Your task to perform on an android device: Open Google Chrome Image 0: 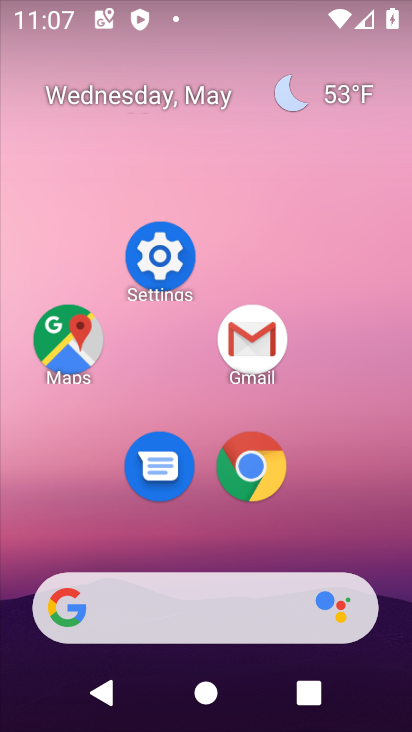
Step 0: drag from (208, 551) to (239, 205)
Your task to perform on an android device: Open Google Chrome Image 1: 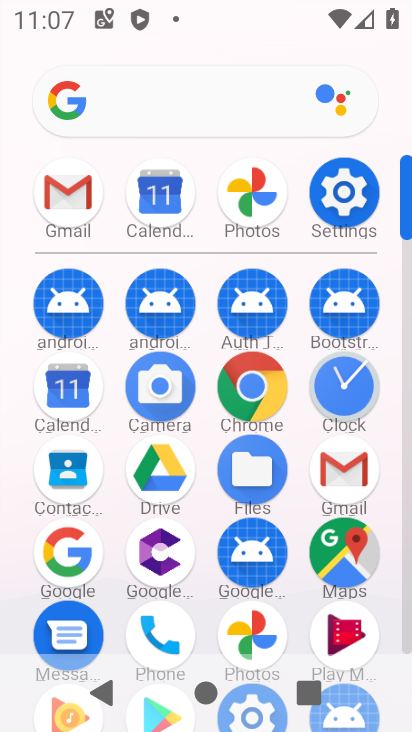
Step 1: drag from (202, 637) to (227, 215)
Your task to perform on an android device: Open Google Chrome Image 2: 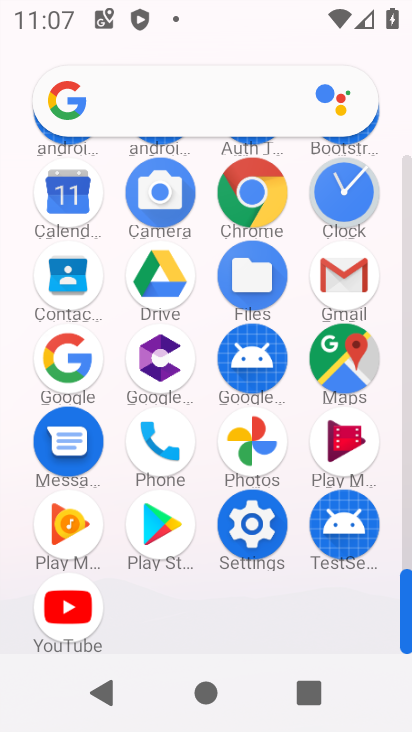
Step 2: click (254, 191)
Your task to perform on an android device: Open Google Chrome Image 3: 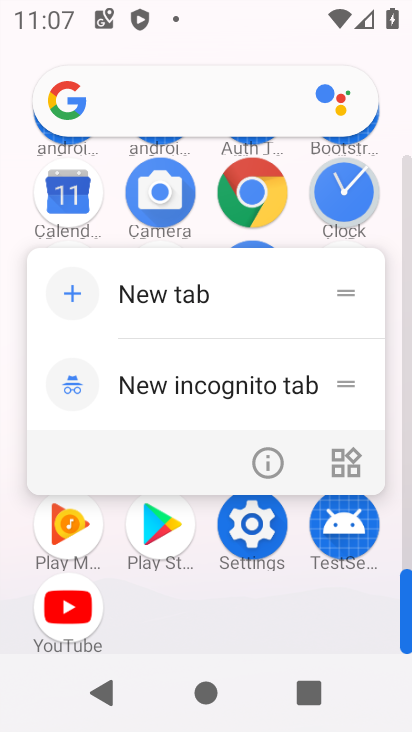
Step 3: click (248, 449)
Your task to perform on an android device: Open Google Chrome Image 4: 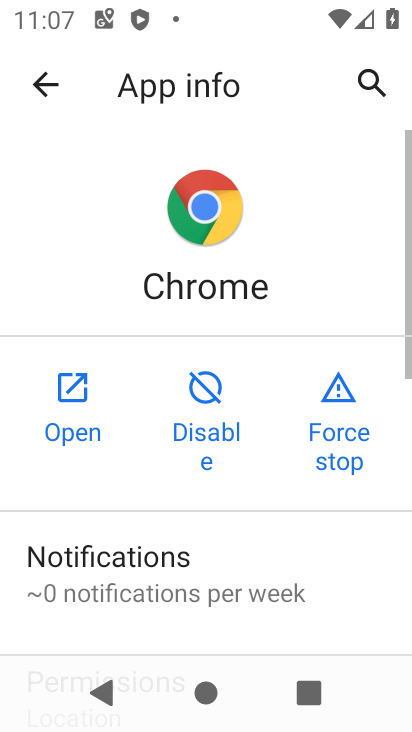
Step 4: click (77, 403)
Your task to perform on an android device: Open Google Chrome Image 5: 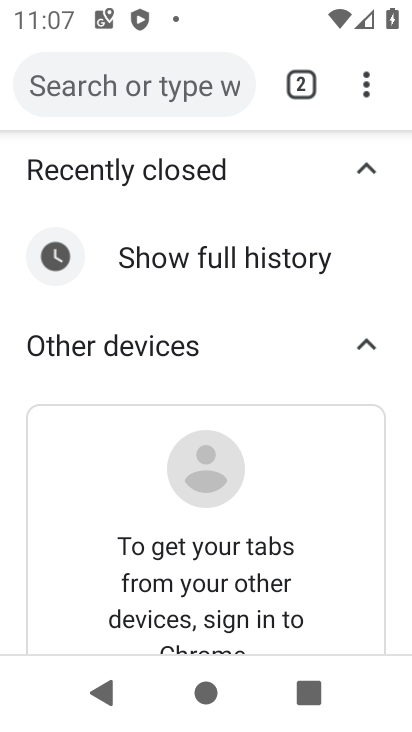
Step 5: drag from (216, 449) to (246, 328)
Your task to perform on an android device: Open Google Chrome Image 6: 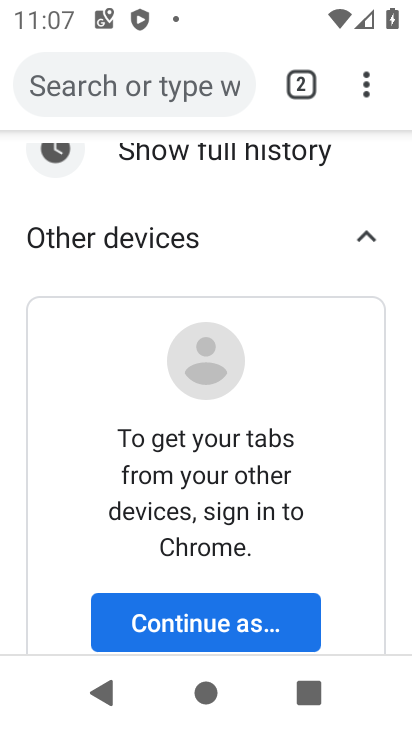
Step 6: click (370, 93)
Your task to perform on an android device: Open Google Chrome Image 7: 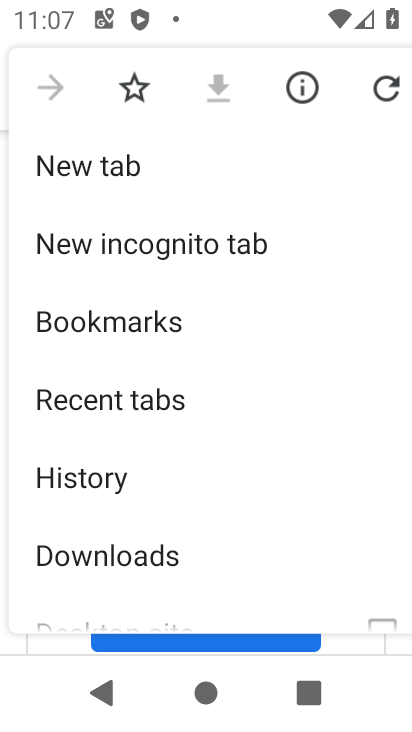
Step 7: task complete